Your task to perform on an android device: Open the stopwatch Image 0: 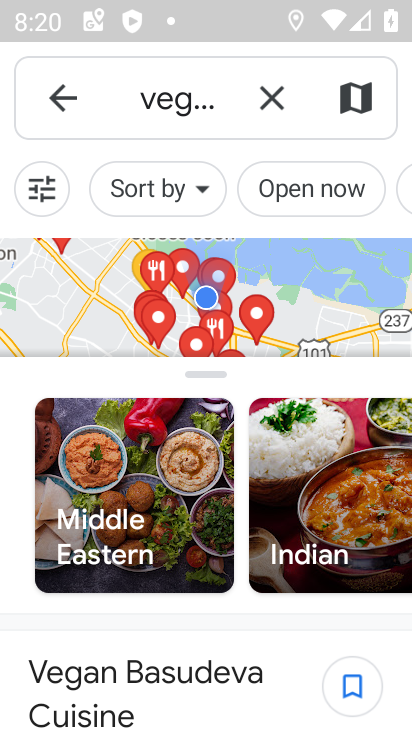
Step 0: press home button
Your task to perform on an android device: Open the stopwatch Image 1: 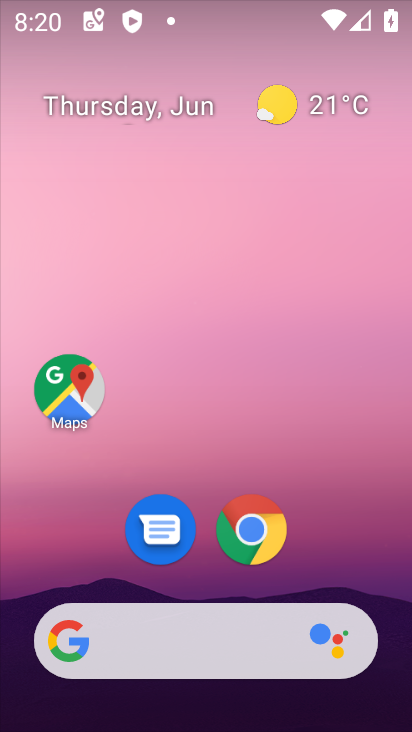
Step 1: drag from (316, 483) to (209, 25)
Your task to perform on an android device: Open the stopwatch Image 2: 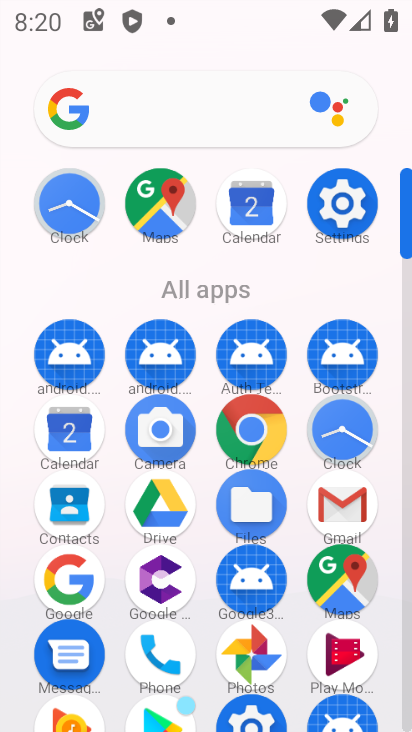
Step 2: click (339, 432)
Your task to perform on an android device: Open the stopwatch Image 3: 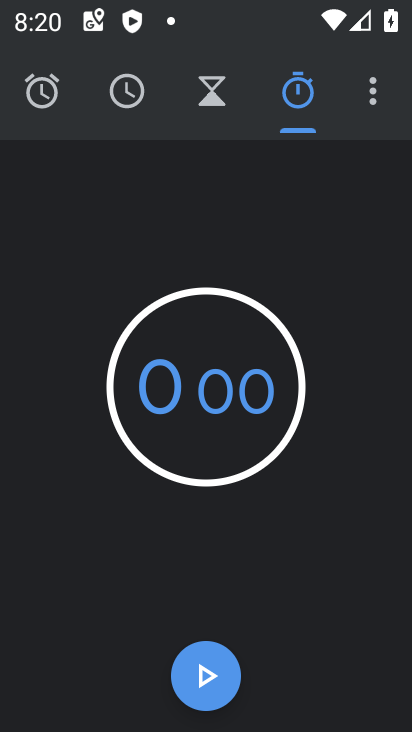
Step 3: task complete